Your task to perform on an android device: Do I have any events tomorrow? Image 0: 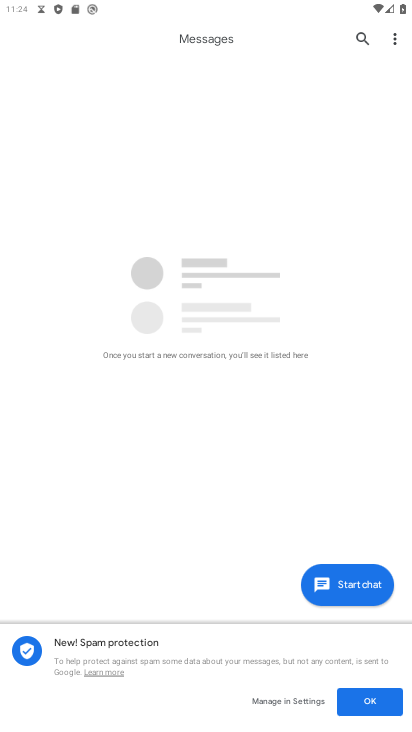
Step 0: press home button
Your task to perform on an android device: Do I have any events tomorrow? Image 1: 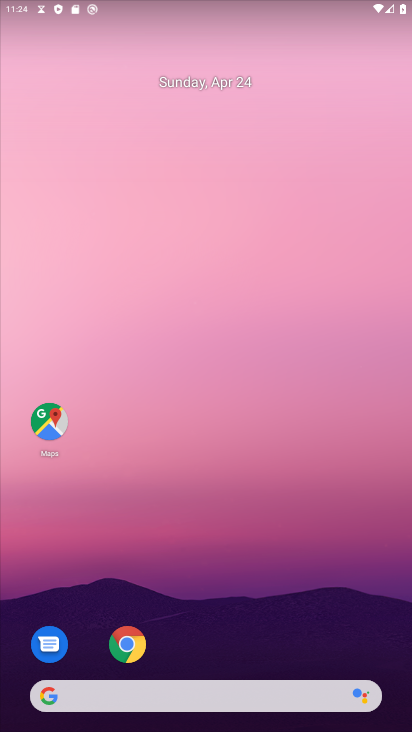
Step 1: drag from (336, 589) to (362, 25)
Your task to perform on an android device: Do I have any events tomorrow? Image 2: 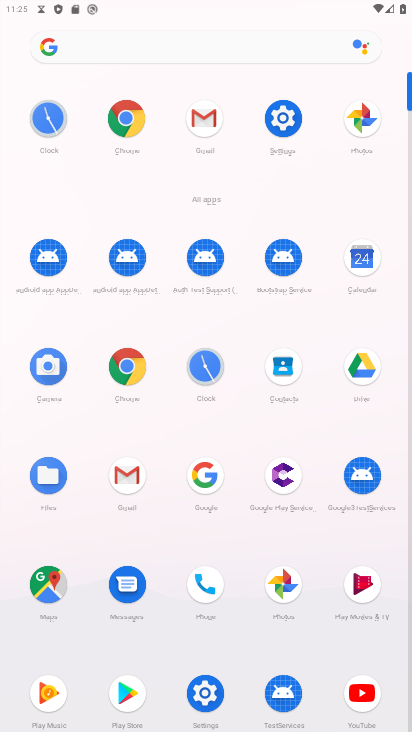
Step 2: click (364, 258)
Your task to perform on an android device: Do I have any events tomorrow? Image 3: 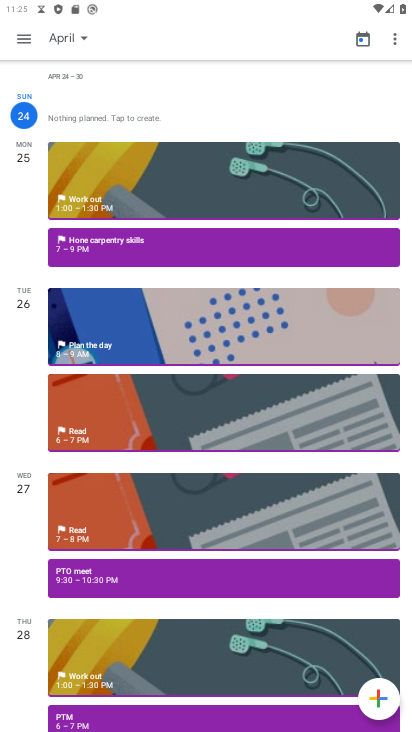
Step 3: click (154, 245)
Your task to perform on an android device: Do I have any events tomorrow? Image 4: 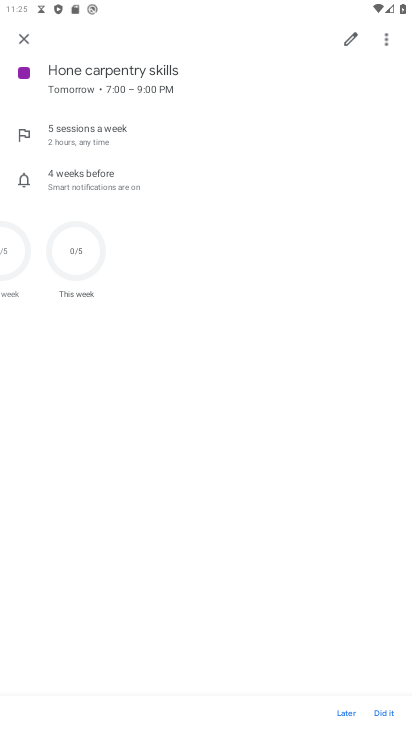
Step 4: task complete